Your task to perform on an android device: Show me the alarms in the clock app Image 0: 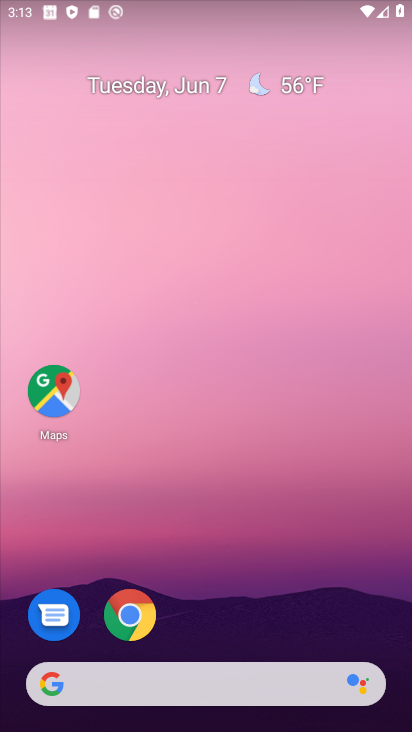
Step 0: drag from (178, 638) to (172, 404)
Your task to perform on an android device: Show me the alarms in the clock app Image 1: 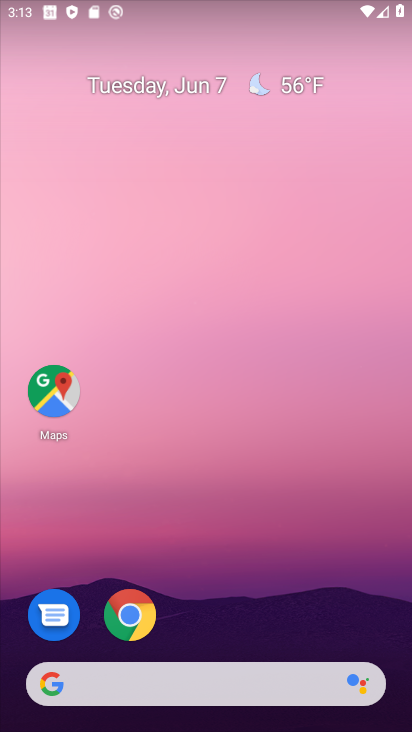
Step 1: drag from (223, 657) to (222, 281)
Your task to perform on an android device: Show me the alarms in the clock app Image 2: 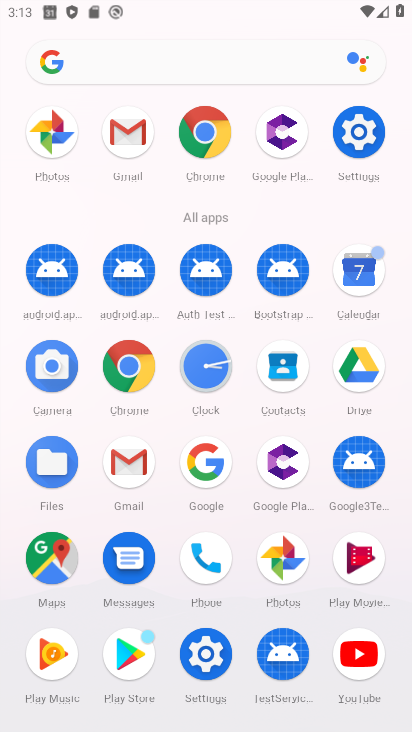
Step 2: click (202, 360)
Your task to perform on an android device: Show me the alarms in the clock app Image 3: 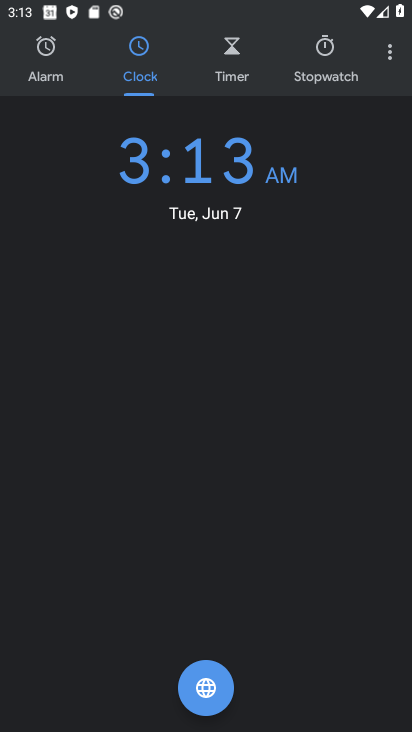
Step 3: click (52, 71)
Your task to perform on an android device: Show me the alarms in the clock app Image 4: 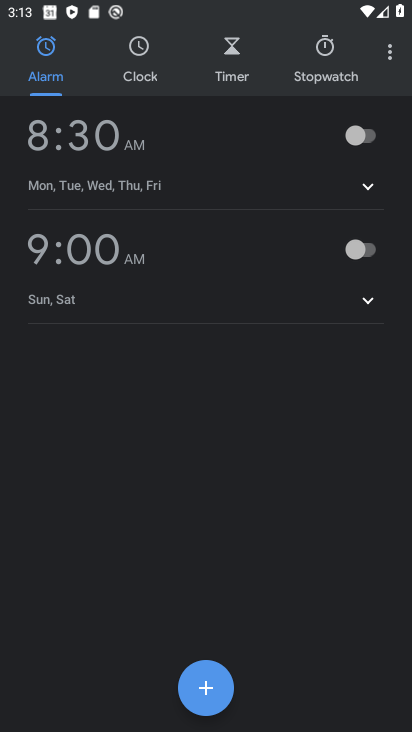
Step 4: task complete